Your task to perform on an android device: all mails in gmail Image 0: 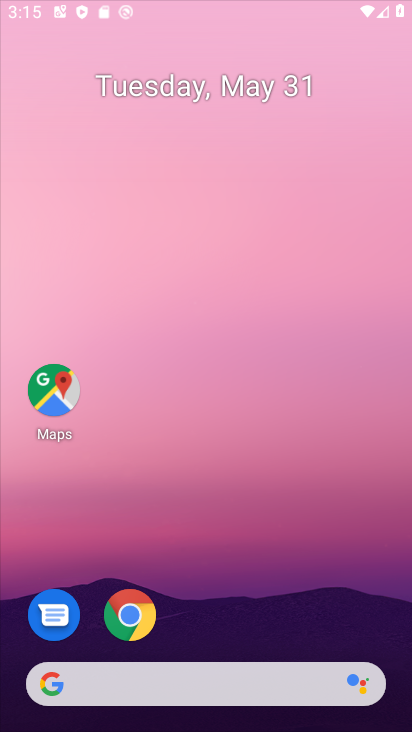
Step 0: drag from (266, 706) to (175, 156)
Your task to perform on an android device: all mails in gmail Image 1: 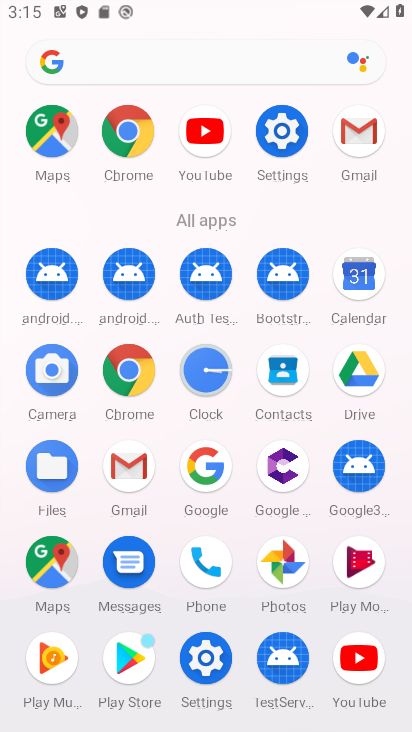
Step 1: click (116, 463)
Your task to perform on an android device: all mails in gmail Image 2: 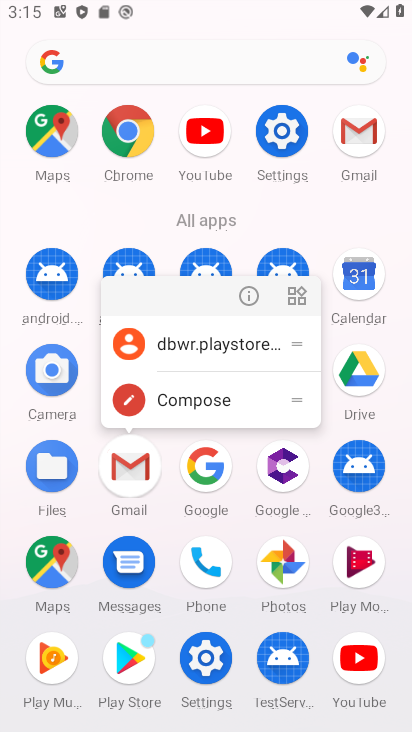
Step 2: click (116, 464)
Your task to perform on an android device: all mails in gmail Image 3: 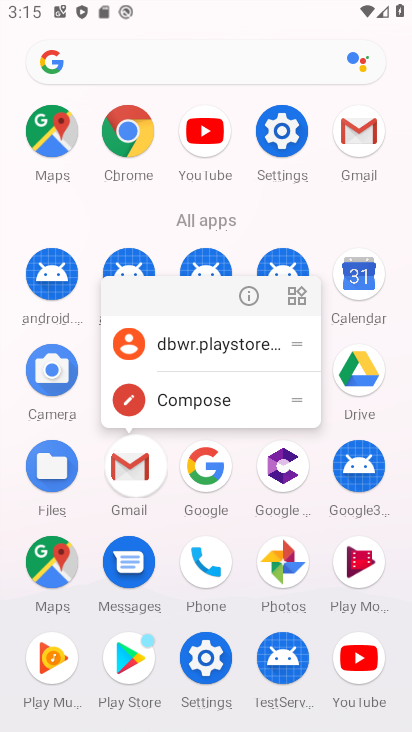
Step 3: click (122, 464)
Your task to perform on an android device: all mails in gmail Image 4: 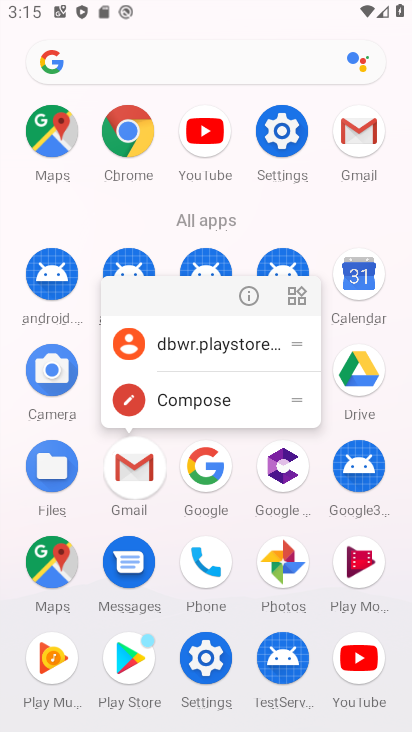
Step 4: click (126, 465)
Your task to perform on an android device: all mails in gmail Image 5: 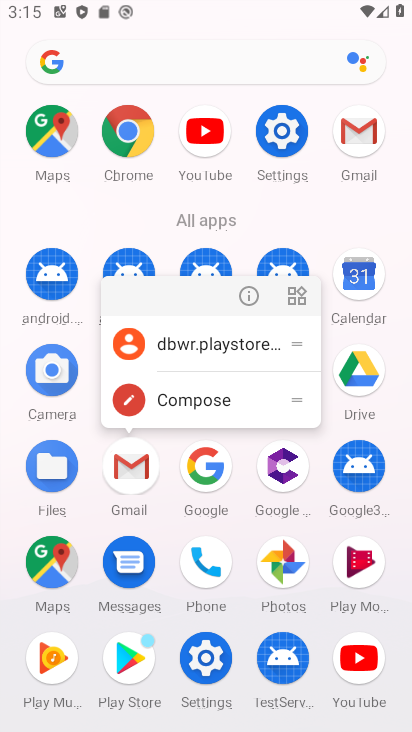
Step 5: click (125, 464)
Your task to perform on an android device: all mails in gmail Image 6: 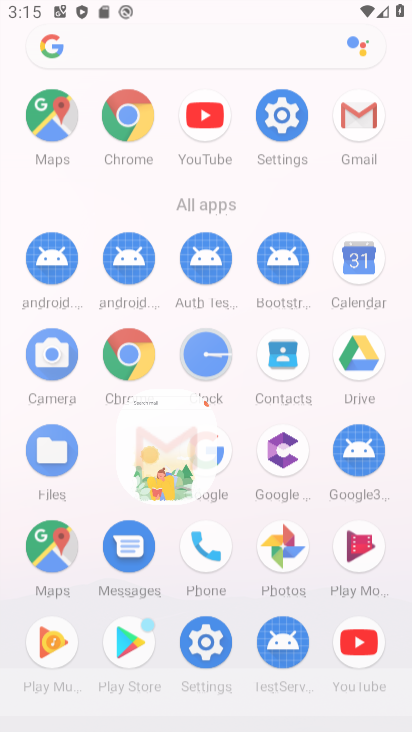
Step 6: click (124, 461)
Your task to perform on an android device: all mails in gmail Image 7: 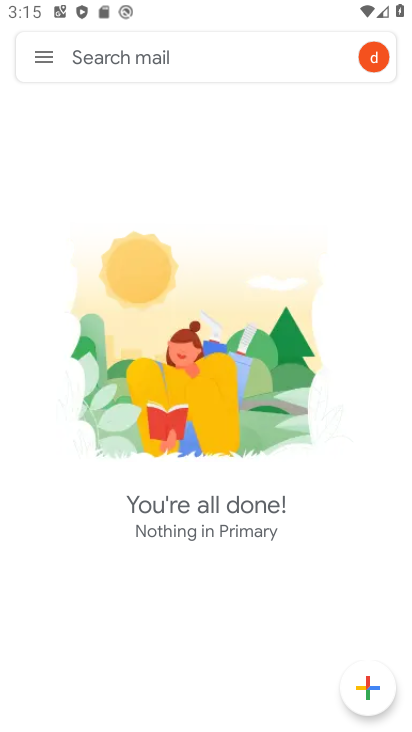
Step 7: click (126, 461)
Your task to perform on an android device: all mails in gmail Image 8: 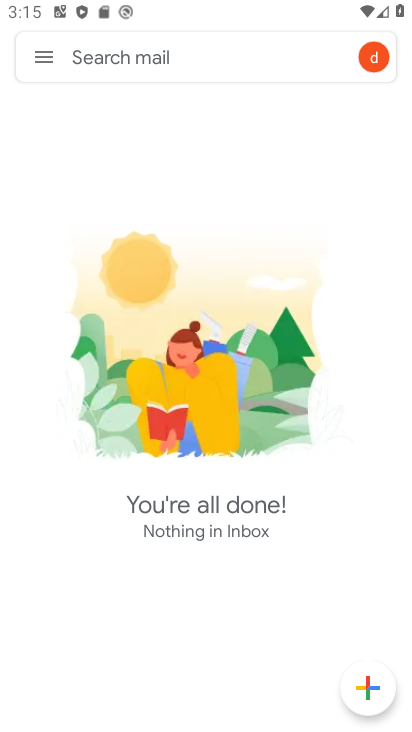
Step 8: click (48, 46)
Your task to perform on an android device: all mails in gmail Image 9: 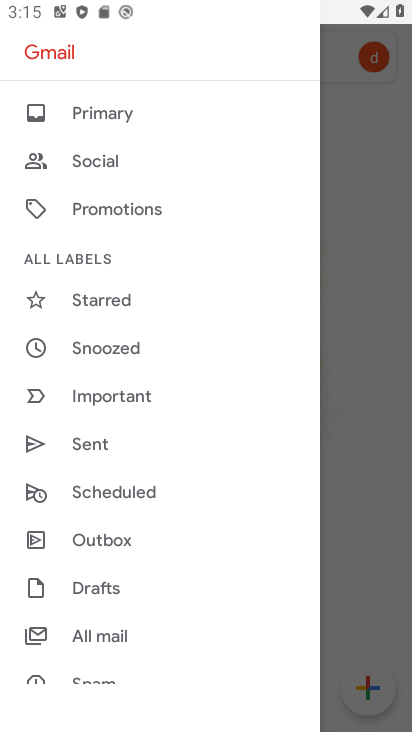
Step 9: click (104, 635)
Your task to perform on an android device: all mails in gmail Image 10: 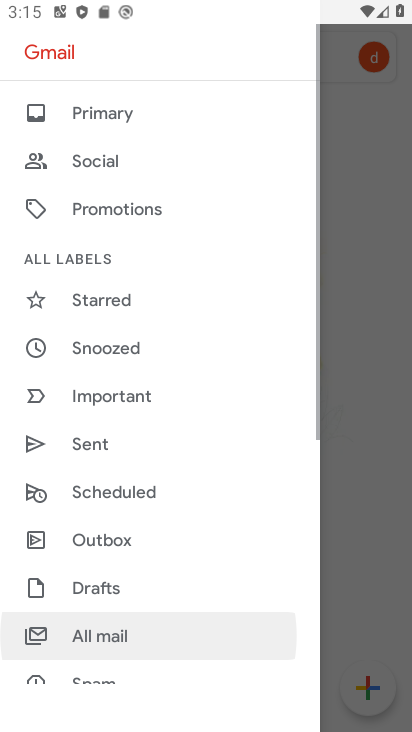
Step 10: click (104, 637)
Your task to perform on an android device: all mails in gmail Image 11: 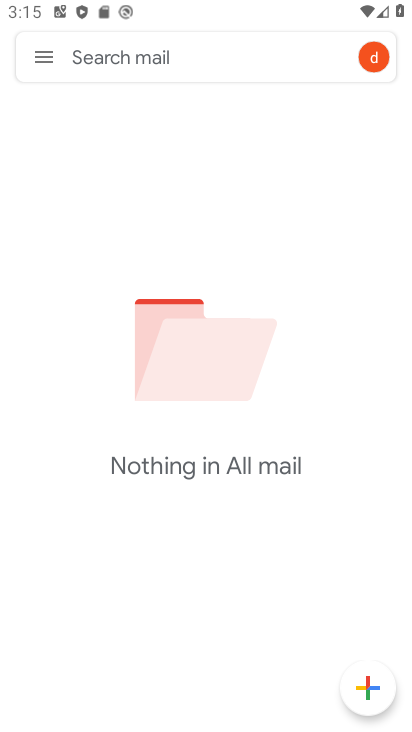
Step 11: task complete